Your task to perform on an android device: empty trash in the gmail app Image 0: 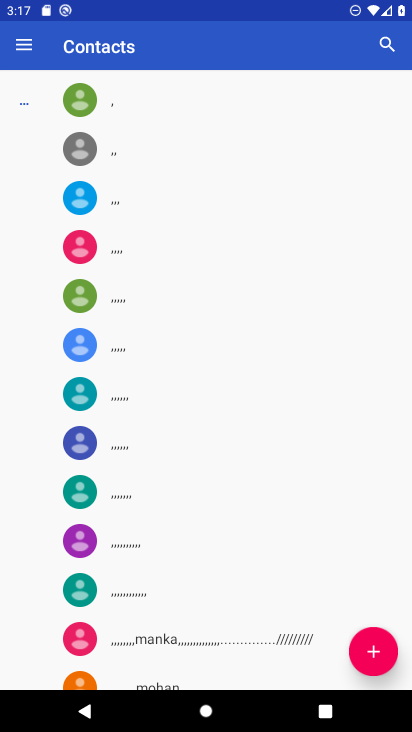
Step 0: press home button
Your task to perform on an android device: empty trash in the gmail app Image 1: 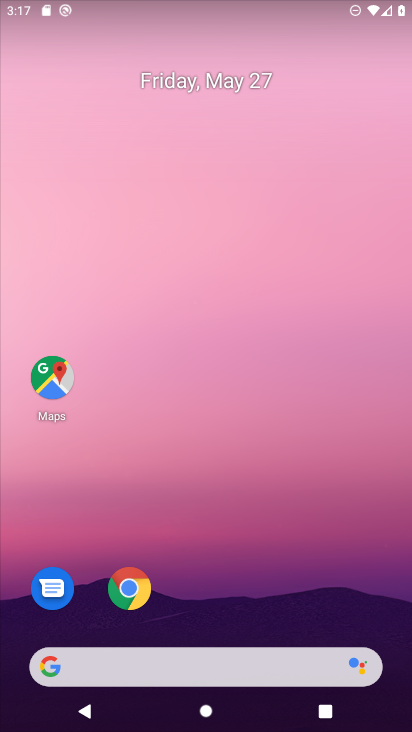
Step 1: drag from (232, 530) to (257, 223)
Your task to perform on an android device: empty trash in the gmail app Image 2: 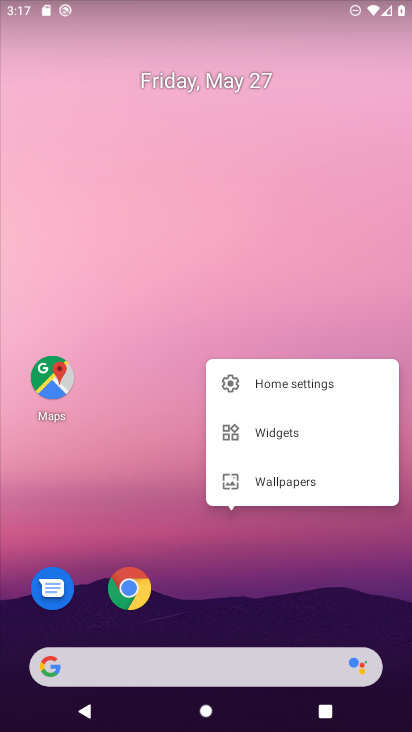
Step 2: drag from (241, 551) to (288, 61)
Your task to perform on an android device: empty trash in the gmail app Image 3: 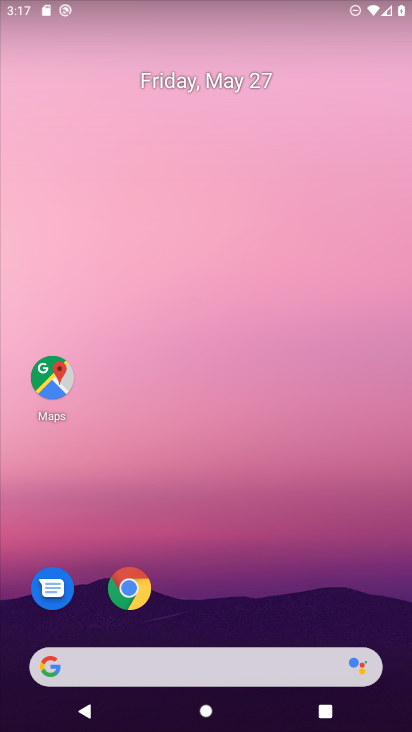
Step 3: drag from (261, 591) to (256, 23)
Your task to perform on an android device: empty trash in the gmail app Image 4: 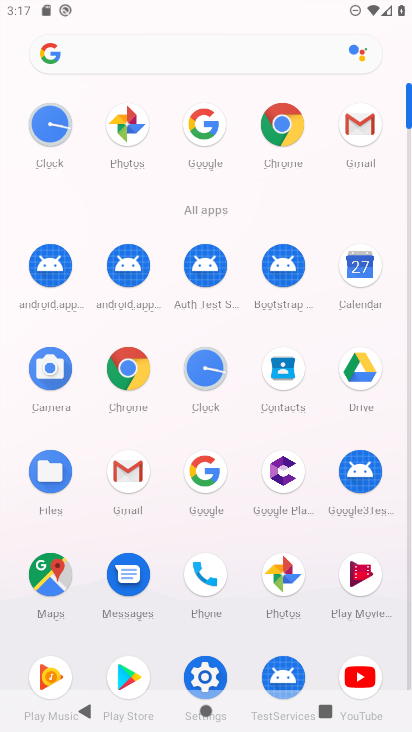
Step 4: click (127, 469)
Your task to perform on an android device: empty trash in the gmail app Image 5: 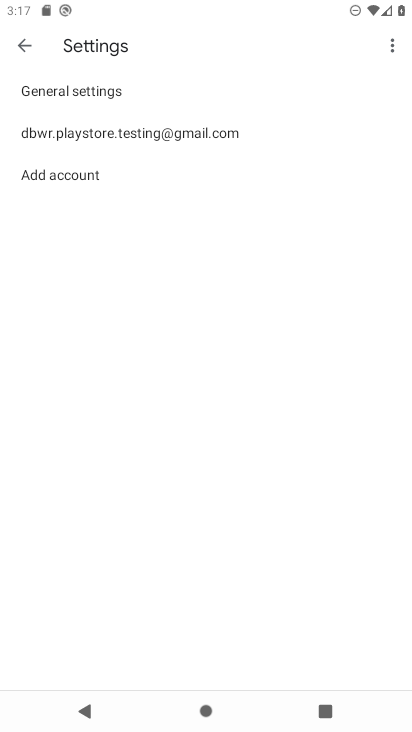
Step 5: click (28, 46)
Your task to perform on an android device: empty trash in the gmail app Image 6: 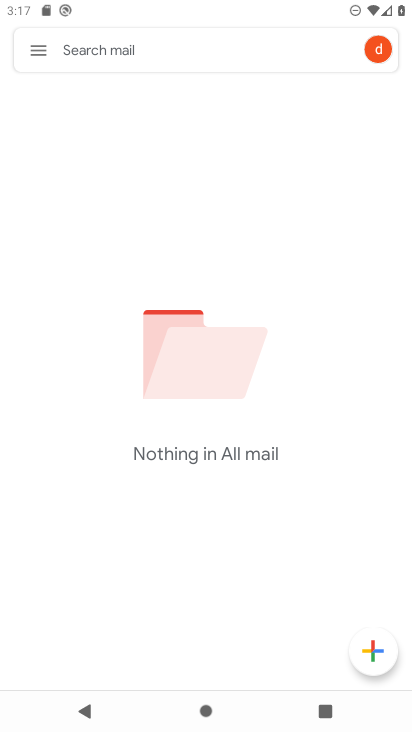
Step 6: click (28, 46)
Your task to perform on an android device: empty trash in the gmail app Image 7: 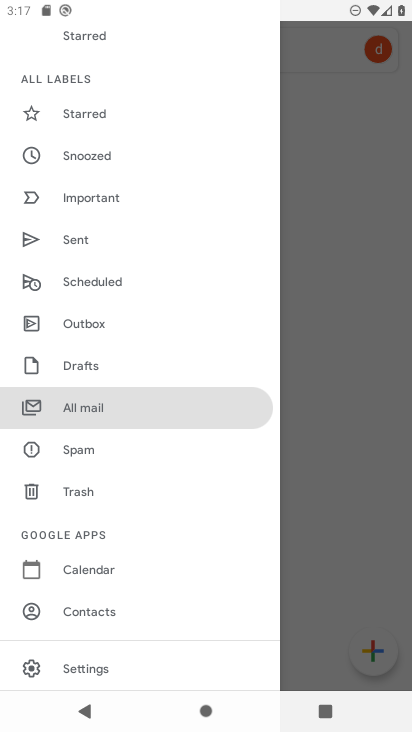
Step 7: click (126, 484)
Your task to perform on an android device: empty trash in the gmail app Image 8: 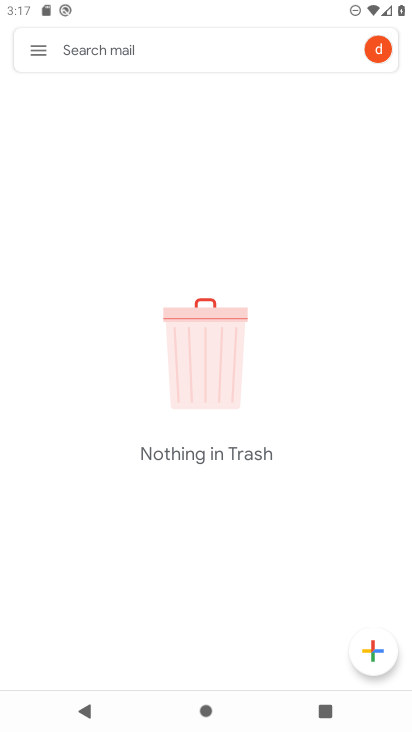
Step 8: task complete